Your task to perform on an android device: Open eBay Image 0: 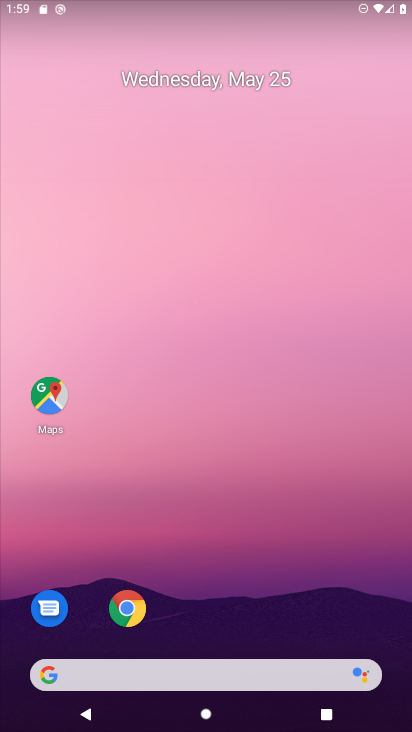
Step 0: click (124, 607)
Your task to perform on an android device: Open eBay Image 1: 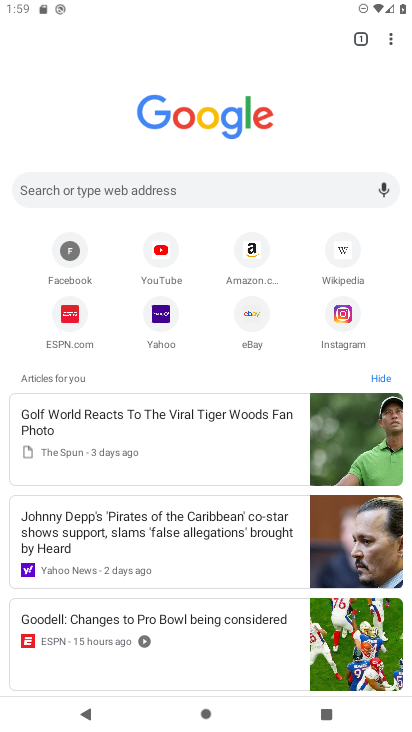
Step 1: click (138, 182)
Your task to perform on an android device: Open eBay Image 2: 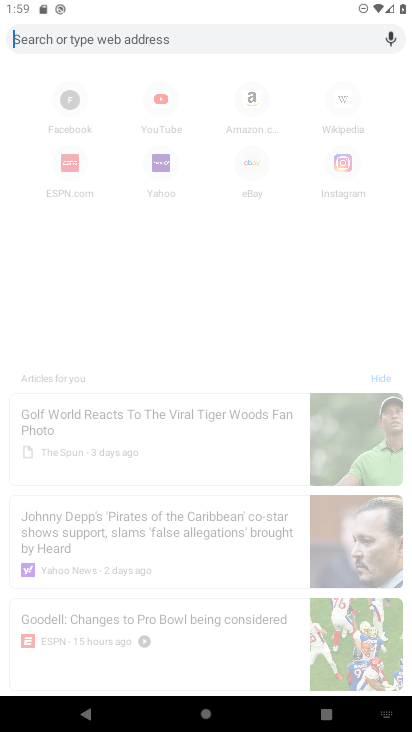
Step 2: type "ebay"
Your task to perform on an android device: Open eBay Image 3: 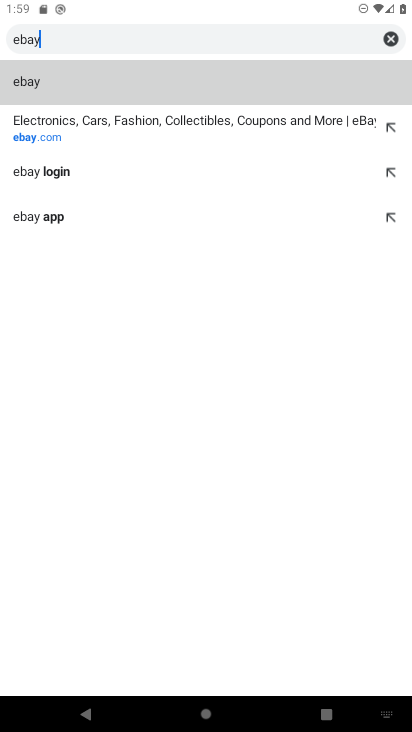
Step 3: click (52, 117)
Your task to perform on an android device: Open eBay Image 4: 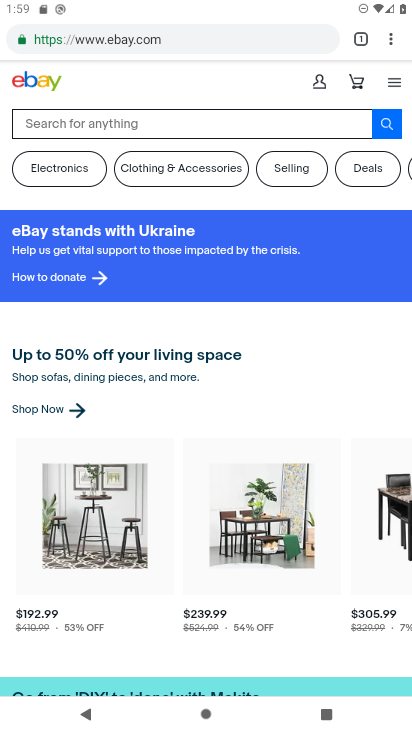
Step 4: task complete